Your task to perform on an android device: change your default location settings in chrome Image 0: 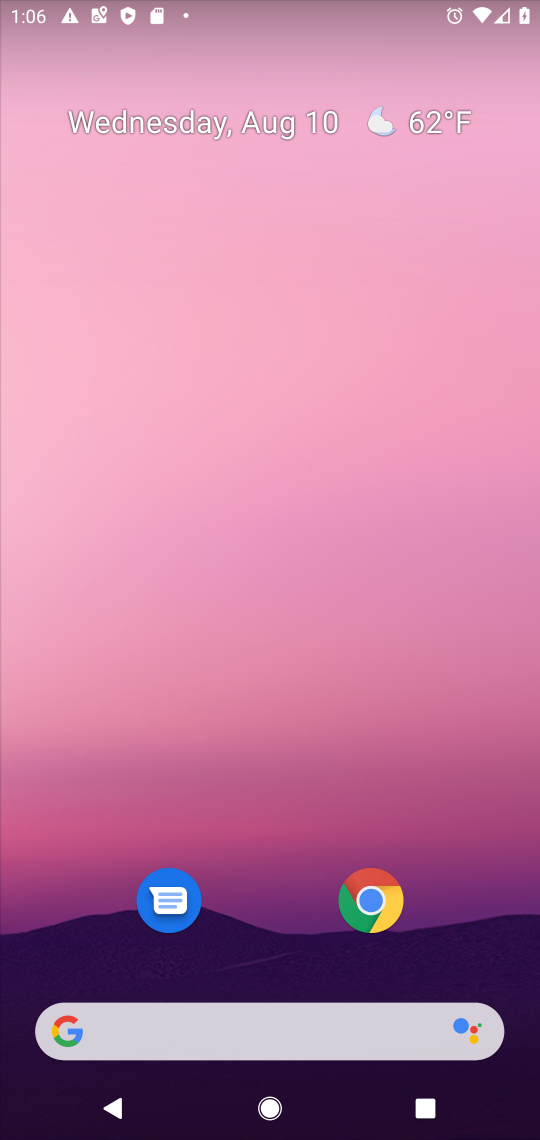
Step 0: click (366, 896)
Your task to perform on an android device: change your default location settings in chrome Image 1: 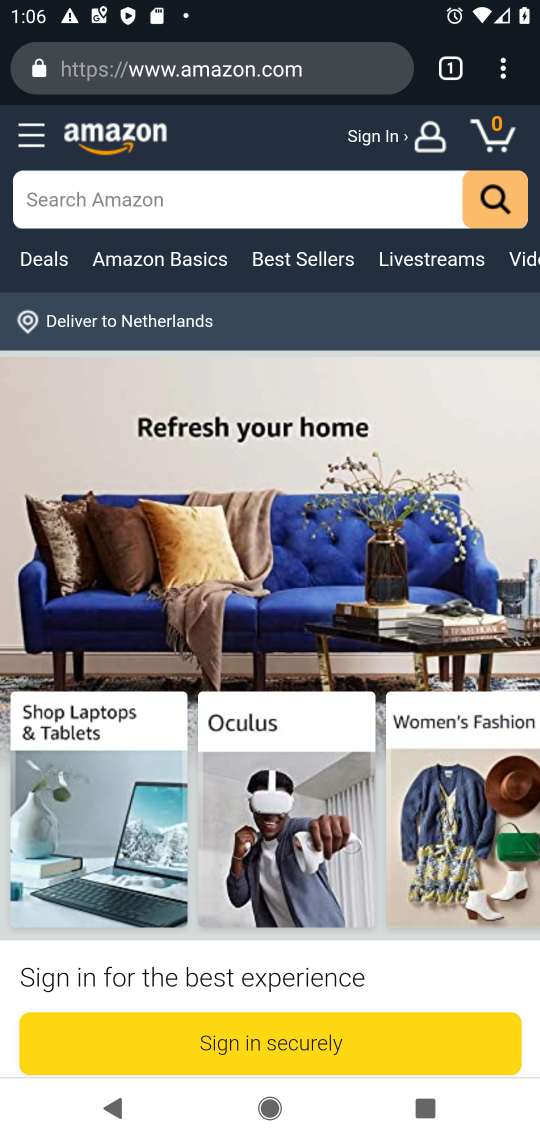
Step 1: click (34, 130)
Your task to perform on an android device: change your default location settings in chrome Image 2: 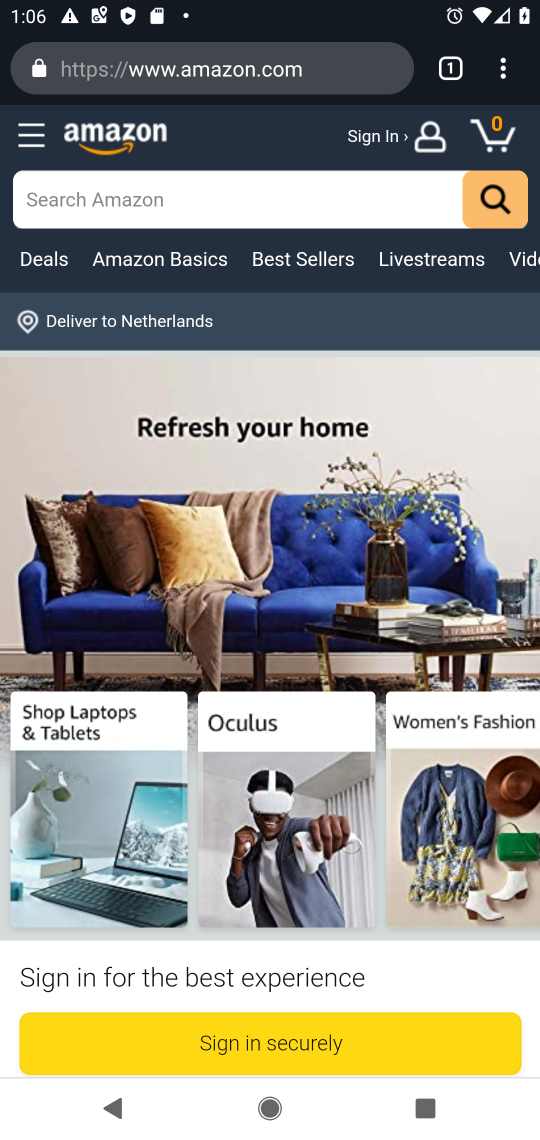
Step 2: click (507, 77)
Your task to perform on an android device: change your default location settings in chrome Image 3: 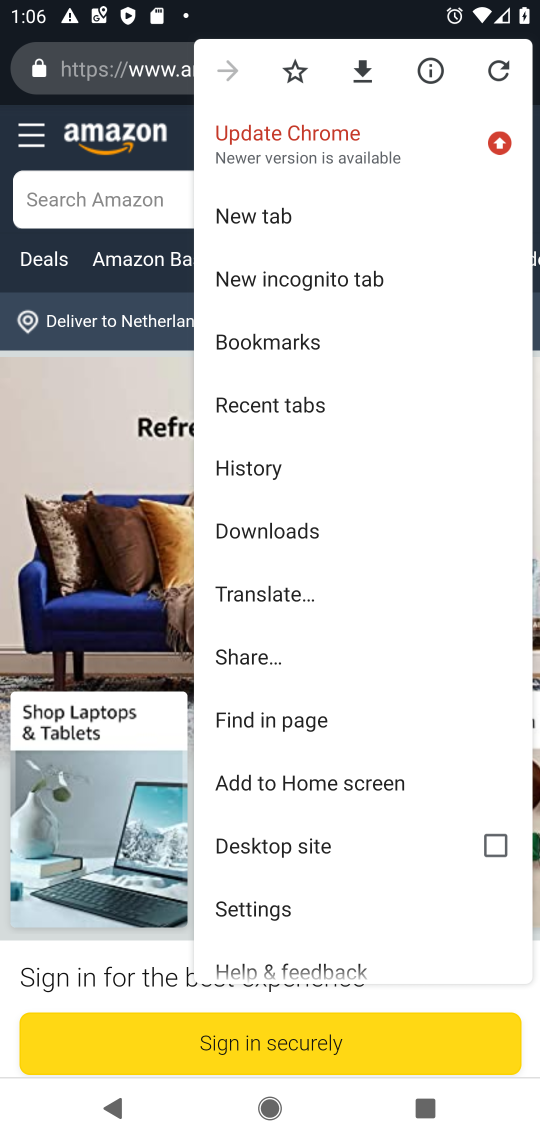
Step 3: click (280, 899)
Your task to perform on an android device: change your default location settings in chrome Image 4: 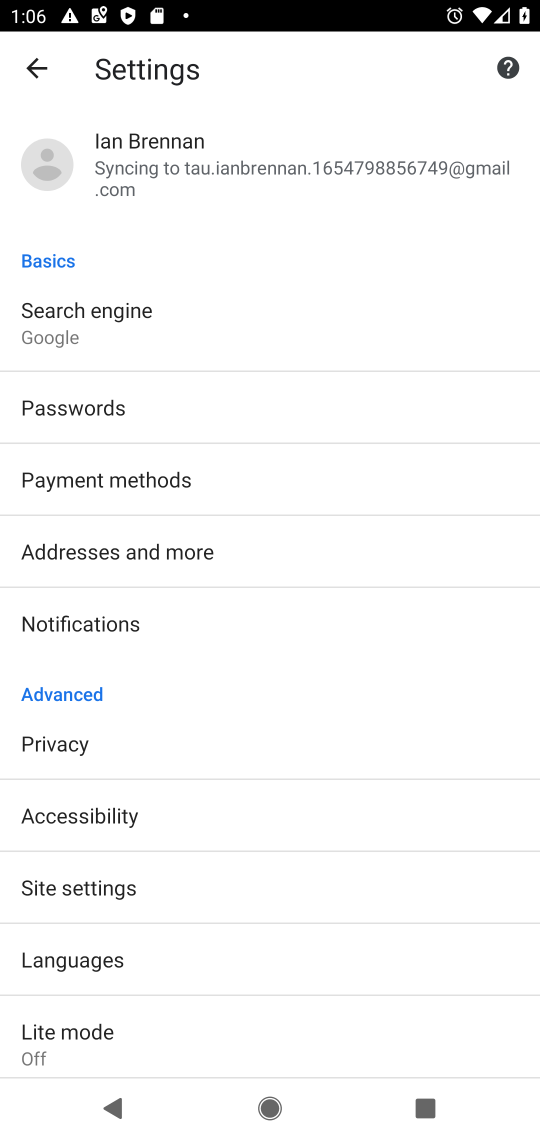
Step 4: click (158, 884)
Your task to perform on an android device: change your default location settings in chrome Image 5: 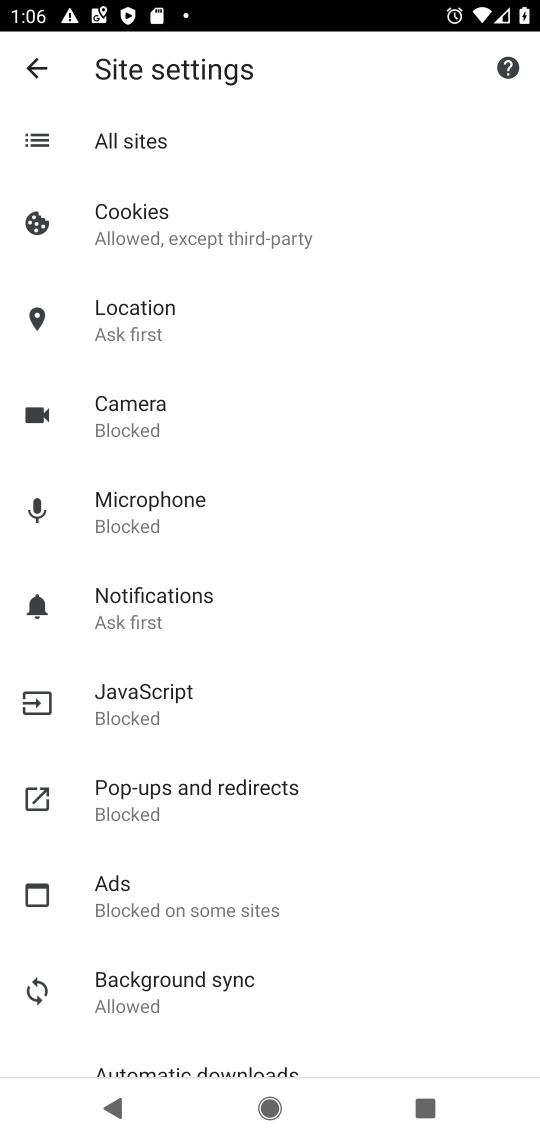
Step 5: click (206, 329)
Your task to perform on an android device: change your default location settings in chrome Image 6: 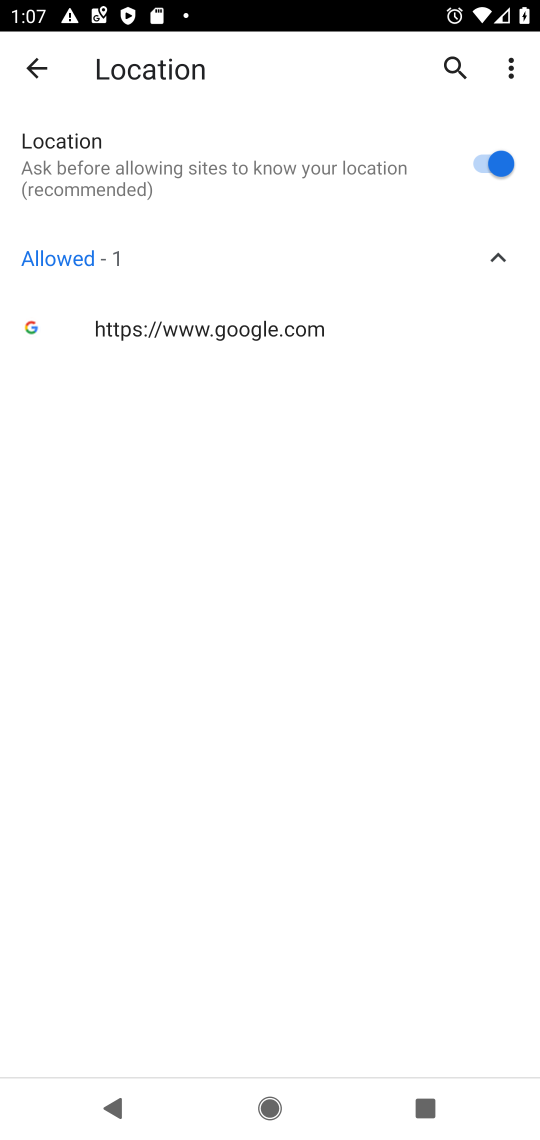
Step 6: click (488, 157)
Your task to perform on an android device: change your default location settings in chrome Image 7: 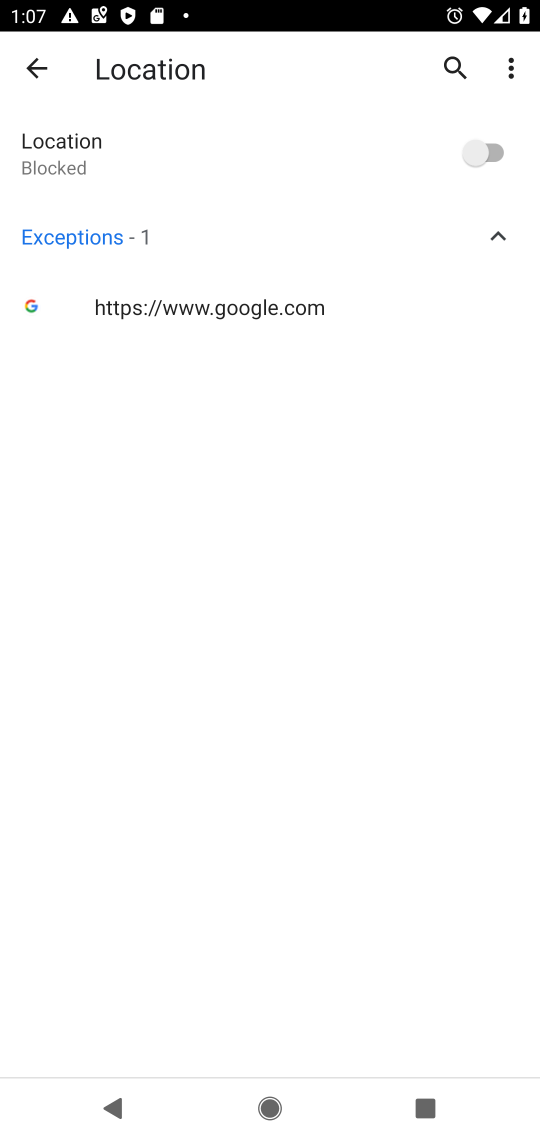
Step 7: task complete